Your task to perform on an android device: refresh tabs in the chrome app Image 0: 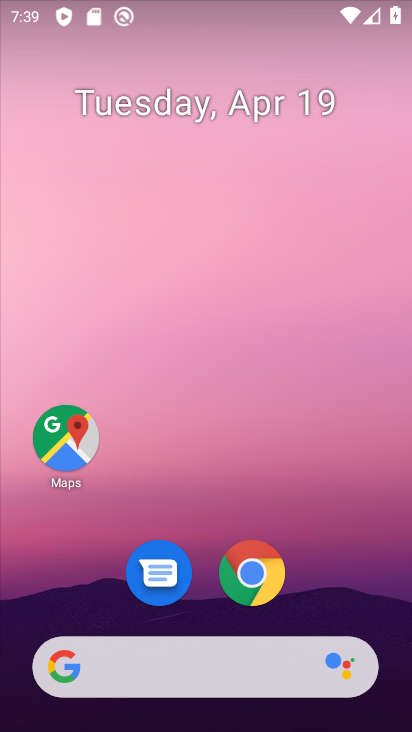
Step 0: drag from (224, 699) to (306, 351)
Your task to perform on an android device: refresh tabs in the chrome app Image 1: 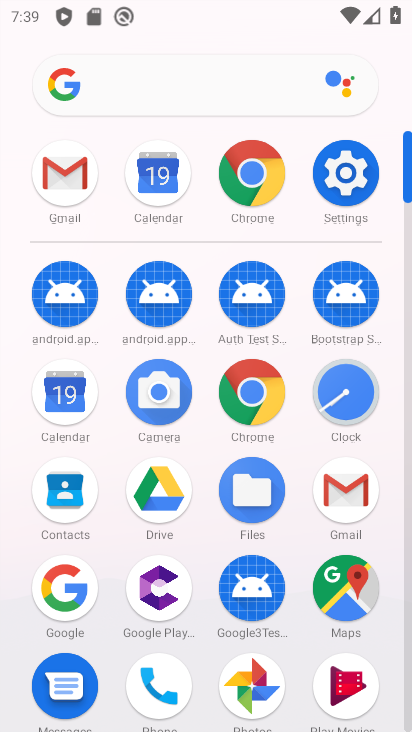
Step 1: click (263, 184)
Your task to perform on an android device: refresh tabs in the chrome app Image 2: 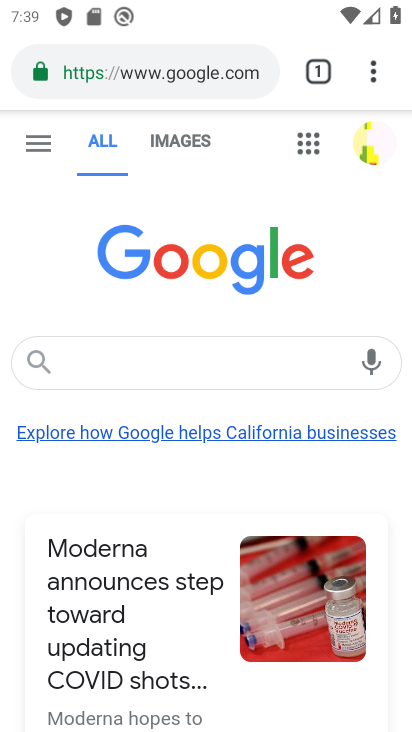
Step 2: click (374, 78)
Your task to perform on an android device: refresh tabs in the chrome app Image 3: 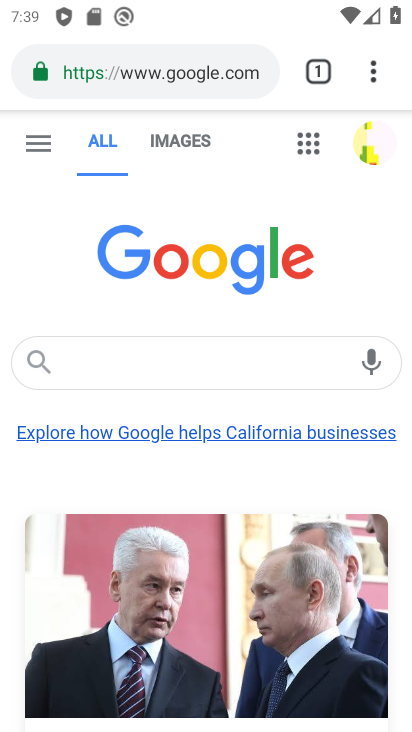
Step 3: click (373, 71)
Your task to perform on an android device: refresh tabs in the chrome app Image 4: 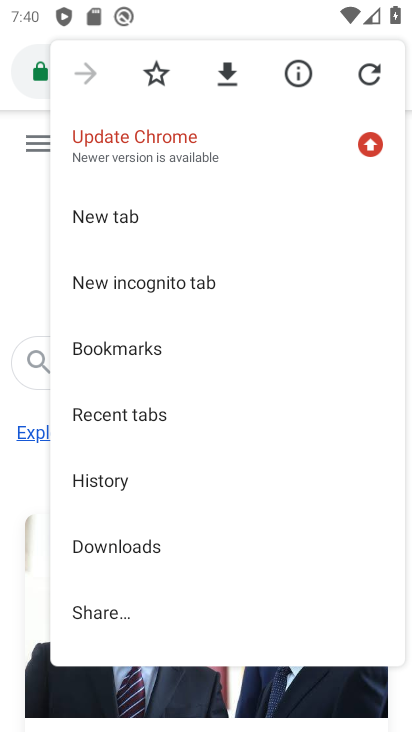
Step 4: drag from (157, 575) to (202, 310)
Your task to perform on an android device: refresh tabs in the chrome app Image 5: 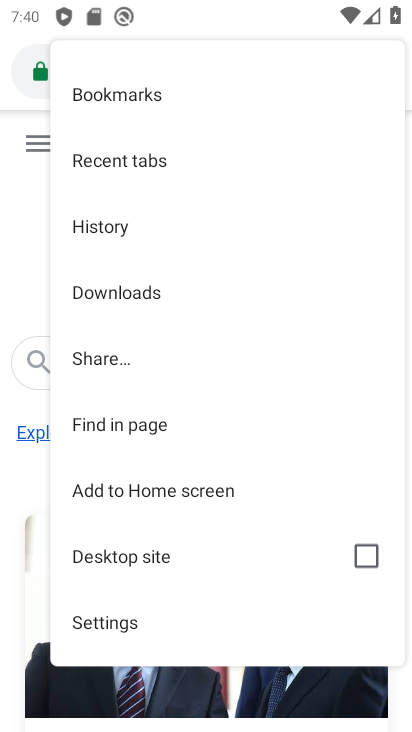
Step 5: drag from (189, 218) to (193, 505)
Your task to perform on an android device: refresh tabs in the chrome app Image 6: 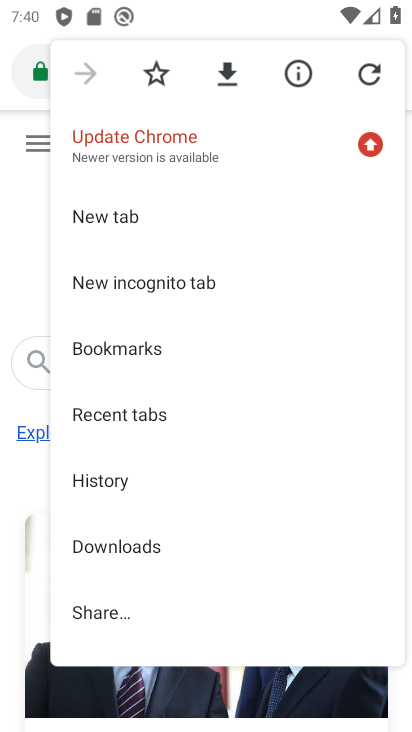
Step 6: click (371, 70)
Your task to perform on an android device: refresh tabs in the chrome app Image 7: 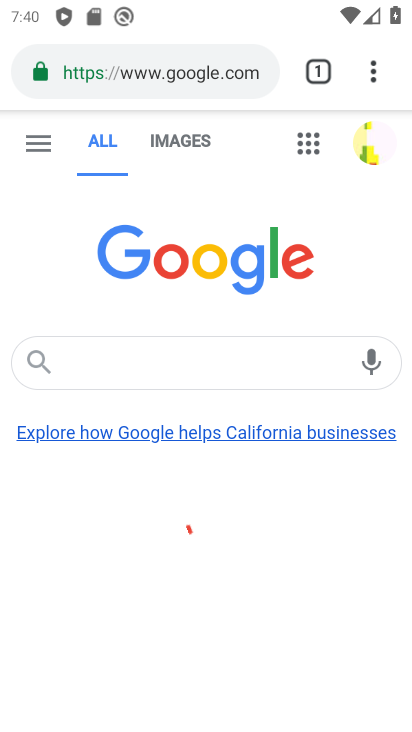
Step 7: task complete